Your task to perform on an android device: change the clock display to show seconds Image 0: 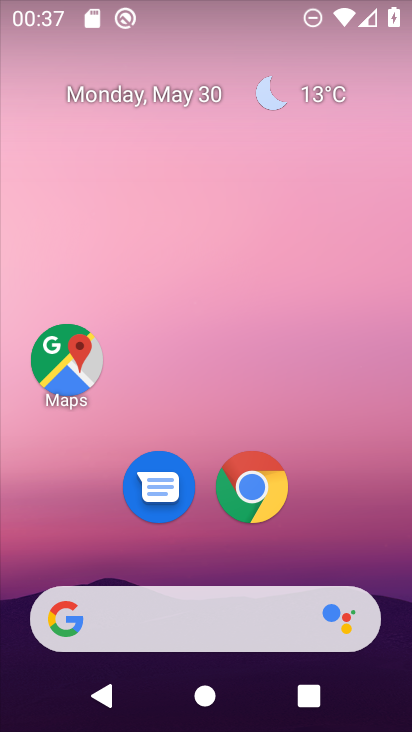
Step 0: drag from (392, 615) to (397, 111)
Your task to perform on an android device: change the clock display to show seconds Image 1: 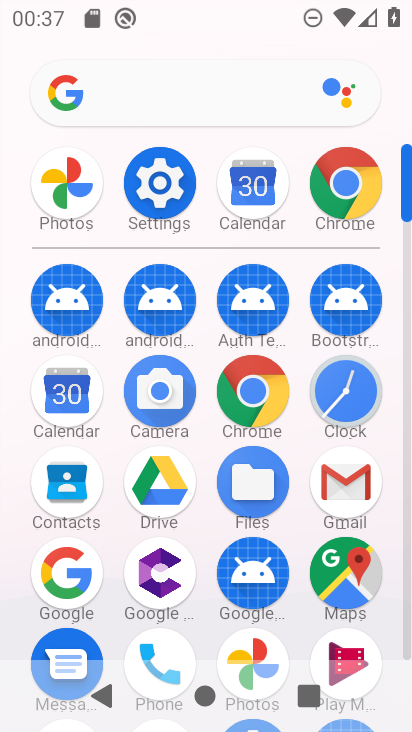
Step 1: click (167, 180)
Your task to perform on an android device: change the clock display to show seconds Image 2: 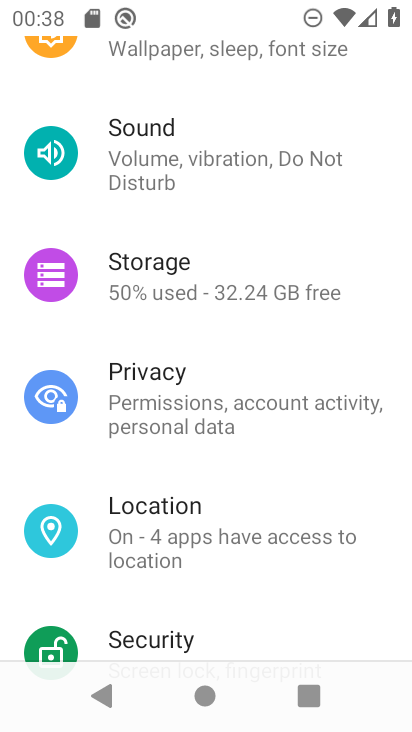
Step 2: press home button
Your task to perform on an android device: change the clock display to show seconds Image 3: 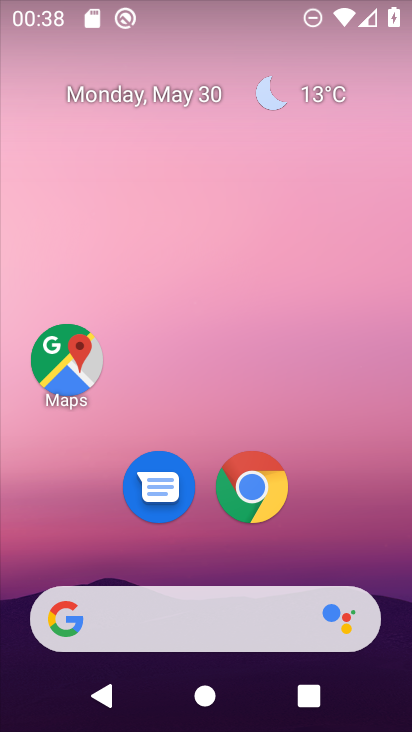
Step 3: drag from (383, 703) to (364, 187)
Your task to perform on an android device: change the clock display to show seconds Image 4: 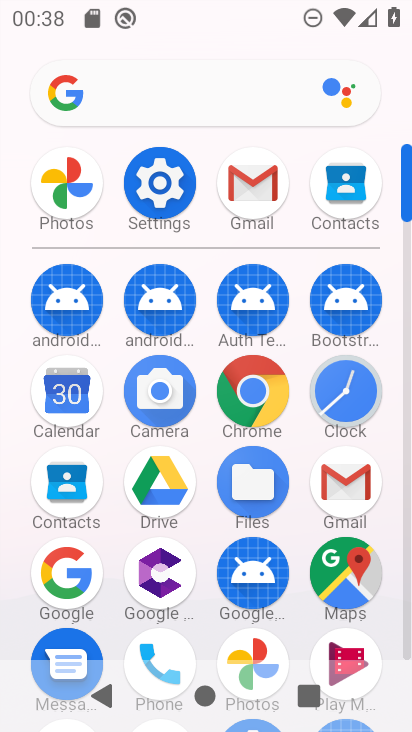
Step 4: click (334, 408)
Your task to perform on an android device: change the clock display to show seconds Image 5: 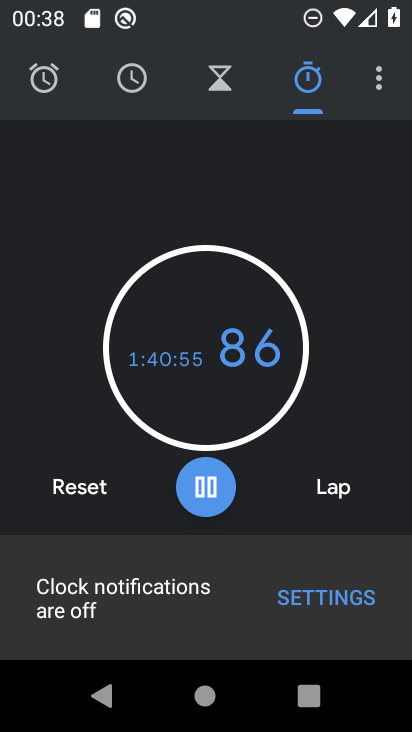
Step 5: click (385, 81)
Your task to perform on an android device: change the clock display to show seconds Image 6: 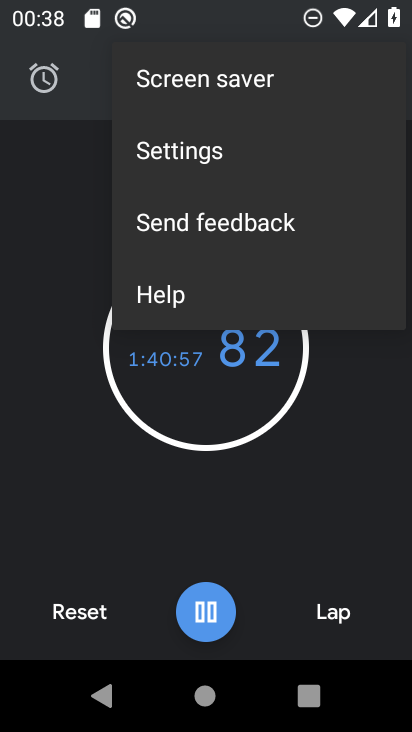
Step 6: click (193, 157)
Your task to perform on an android device: change the clock display to show seconds Image 7: 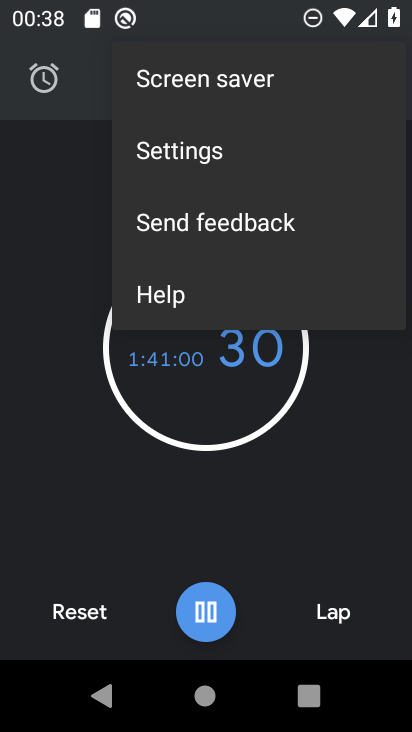
Step 7: click (187, 157)
Your task to perform on an android device: change the clock display to show seconds Image 8: 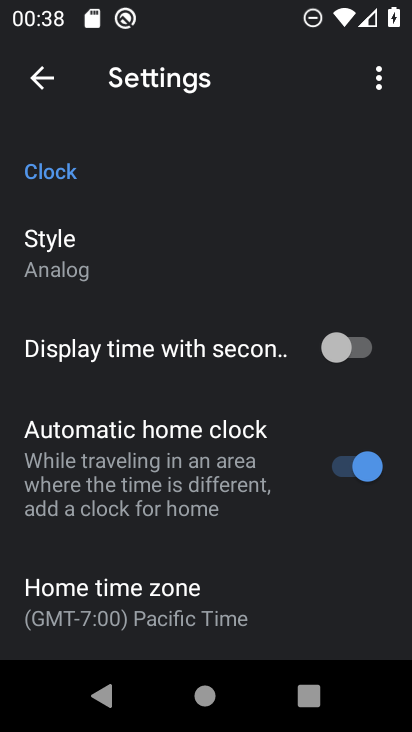
Step 8: click (366, 341)
Your task to perform on an android device: change the clock display to show seconds Image 9: 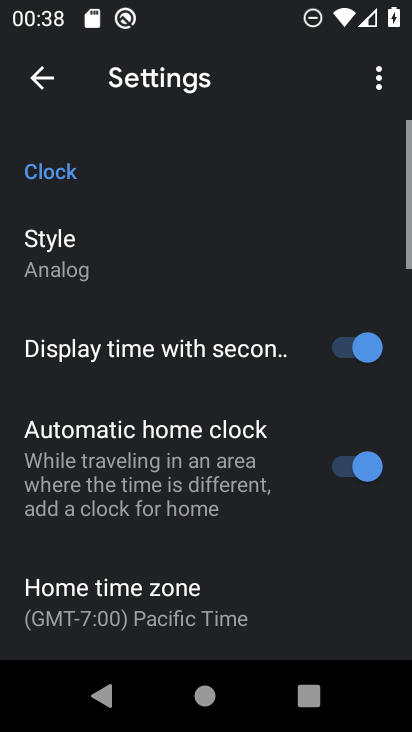
Step 9: task complete